Your task to perform on an android device: allow cookies in the chrome app Image 0: 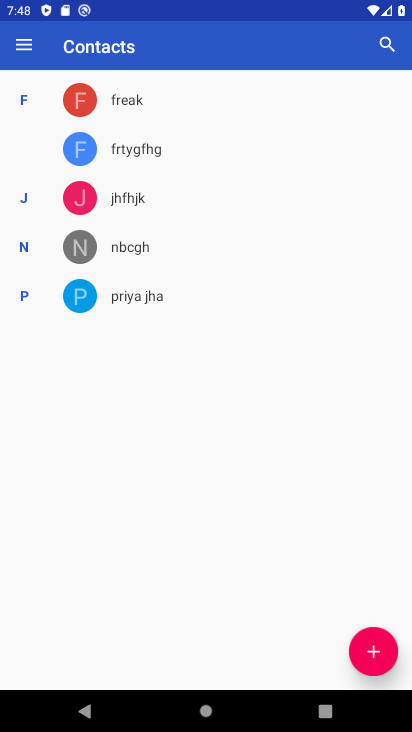
Step 0: press home button
Your task to perform on an android device: allow cookies in the chrome app Image 1: 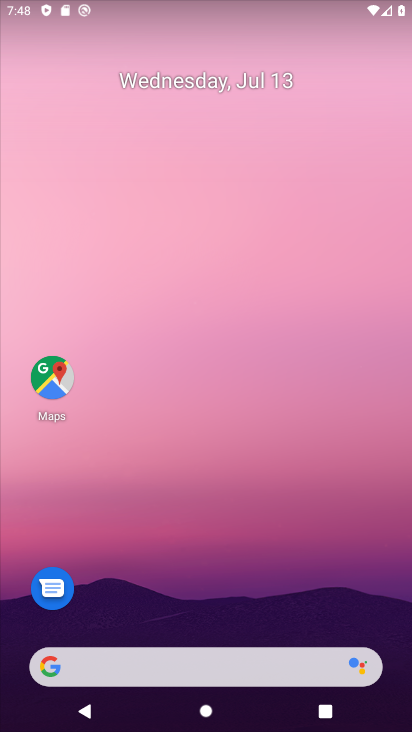
Step 1: drag from (173, 650) to (160, 10)
Your task to perform on an android device: allow cookies in the chrome app Image 2: 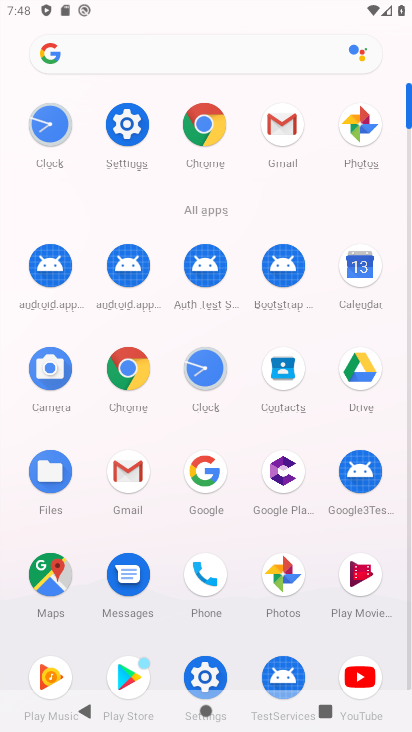
Step 2: click (207, 118)
Your task to perform on an android device: allow cookies in the chrome app Image 3: 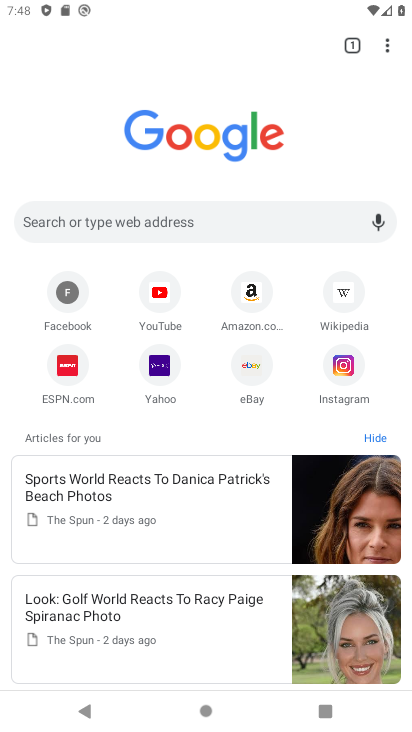
Step 3: click (387, 41)
Your task to perform on an android device: allow cookies in the chrome app Image 4: 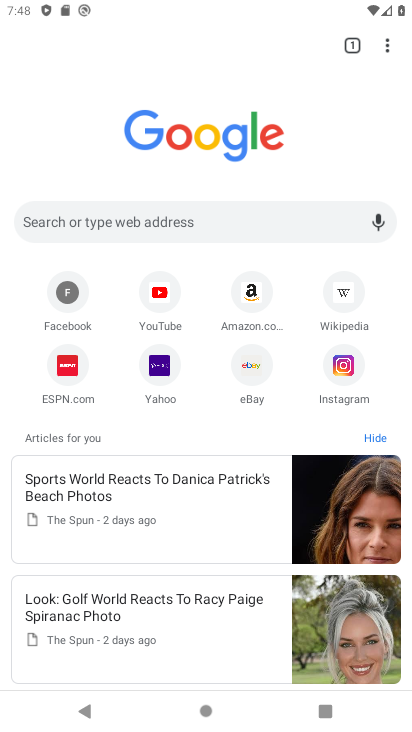
Step 4: click (386, 47)
Your task to perform on an android device: allow cookies in the chrome app Image 5: 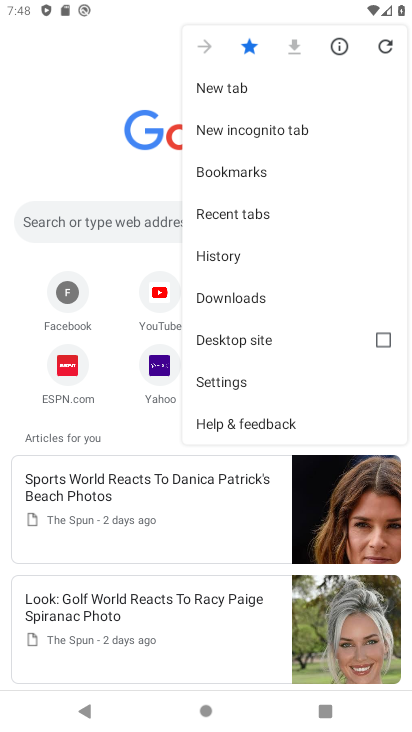
Step 5: click (211, 380)
Your task to perform on an android device: allow cookies in the chrome app Image 6: 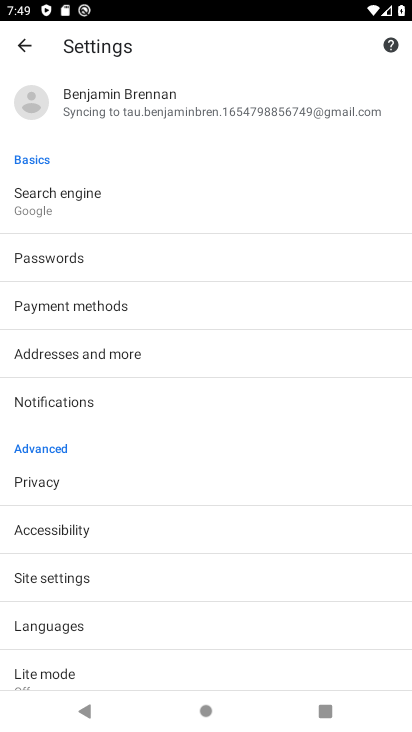
Step 6: click (101, 583)
Your task to perform on an android device: allow cookies in the chrome app Image 7: 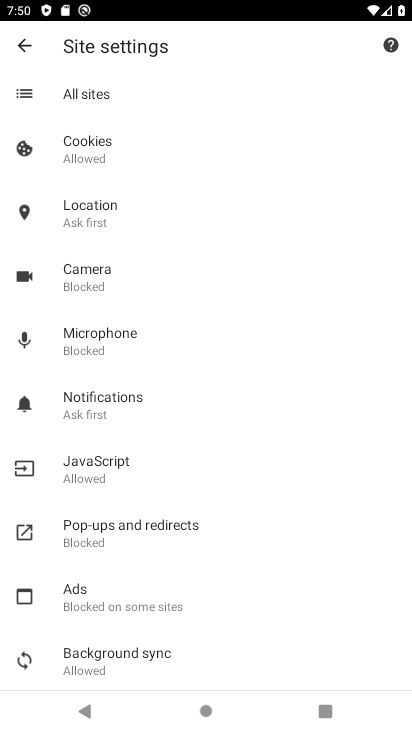
Step 7: click (98, 144)
Your task to perform on an android device: allow cookies in the chrome app Image 8: 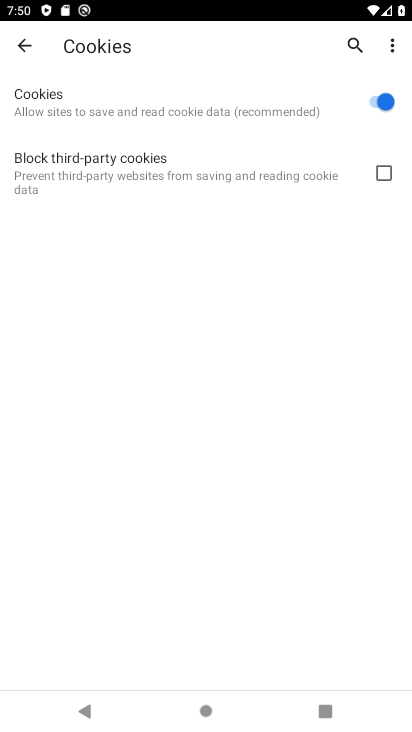
Step 8: task complete